Your task to perform on an android device: Go to location settings Image 0: 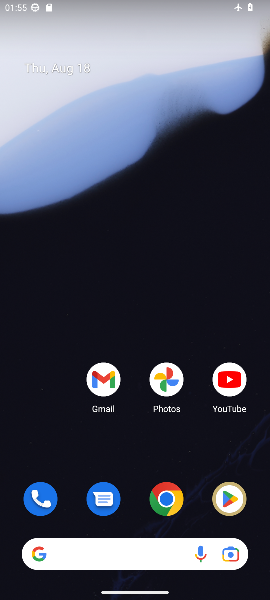
Step 0: drag from (144, 451) to (134, 24)
Your task to perform on an android device: Go to location settings Image 1: 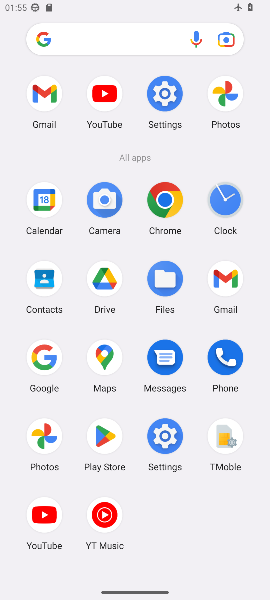
Step 1: click (166, 89)
Your task to perform on an android device: Go to location settings Image 2: 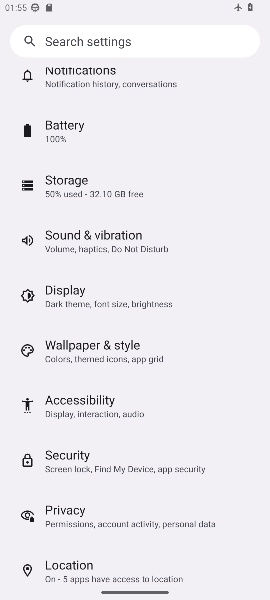
Step 2: click (61, 562)
Your task to perform on an android device: Go to location settings Image 3: 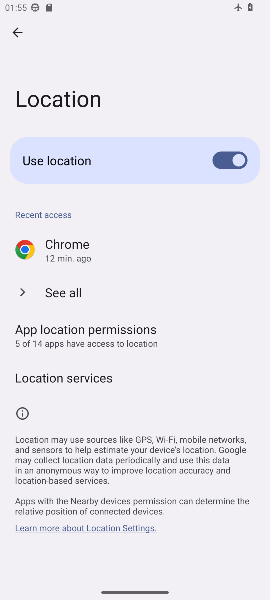
Step 3: task complete